Your task to perform on an android device: open app "Spotify: Music and Podcasts" (install if not already installed) Image 0: 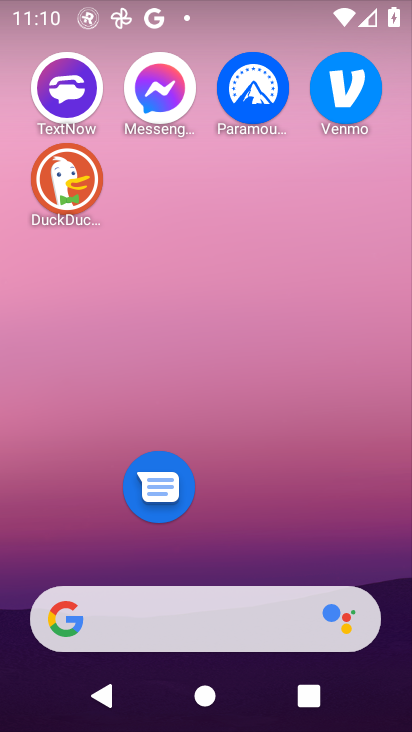
Step 0: drag from (208, 562) to (132, 13)
Your task to perform on an android device: open app "Spotify: Music and Podcasts" (install if not already installed) Image 1: 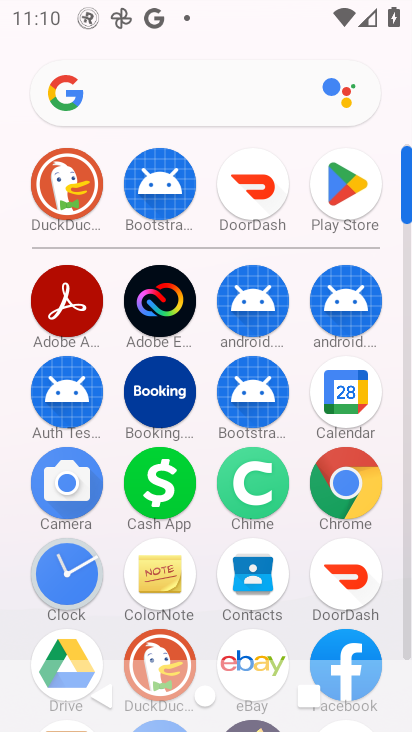
Step 1: click (346, 200)
Your task to perform on an android device: open app "Spotify: Music and Podcasts" (install if not already installed) Image 2: 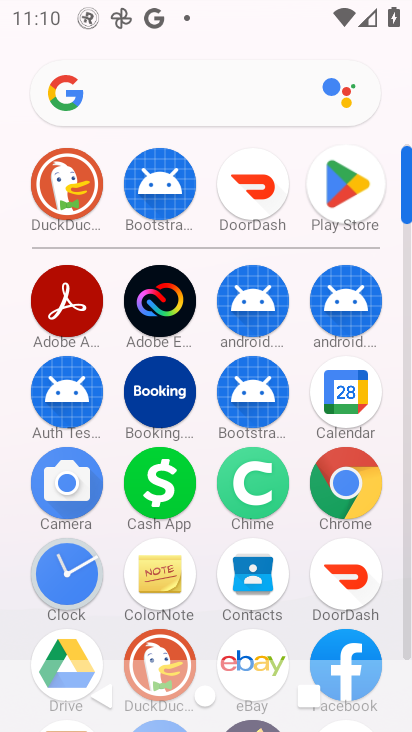
Step 2: click (346, 183)
Your task to perform on an android device: open app "Spotify: Music and Podcasts" (install if not already installed) Image 3: 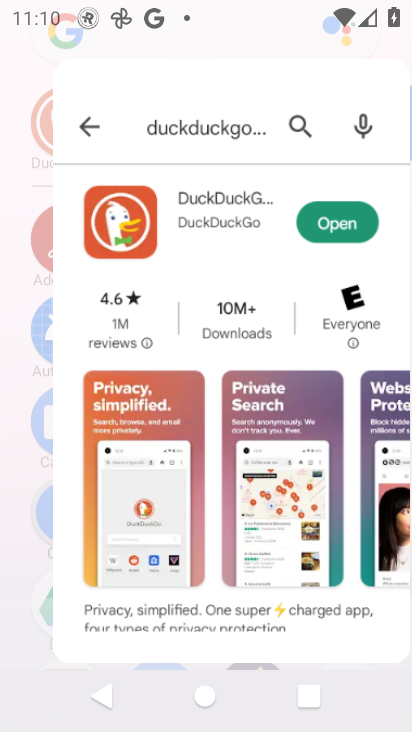
Step 3: click (345, 182)
Your task to perform on an android device: open app "Spotify: Music and Podcasts" (install if not already installed) Image 4: 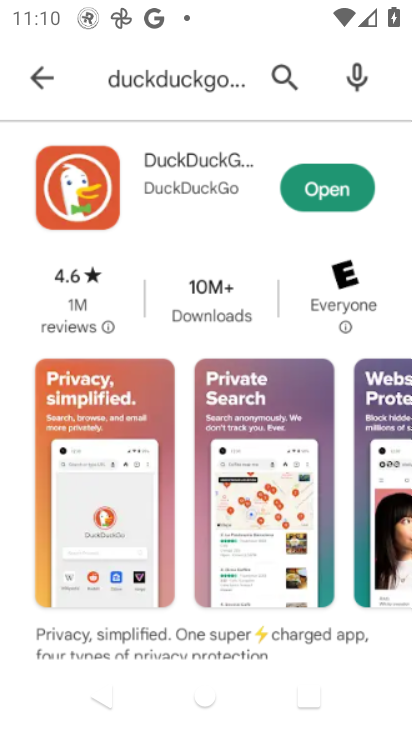
Step 4: click (345, 182)
Your task to perform on an android device: open app "Spotify: Music and Podcasts" (install if not already installed) Image 5: 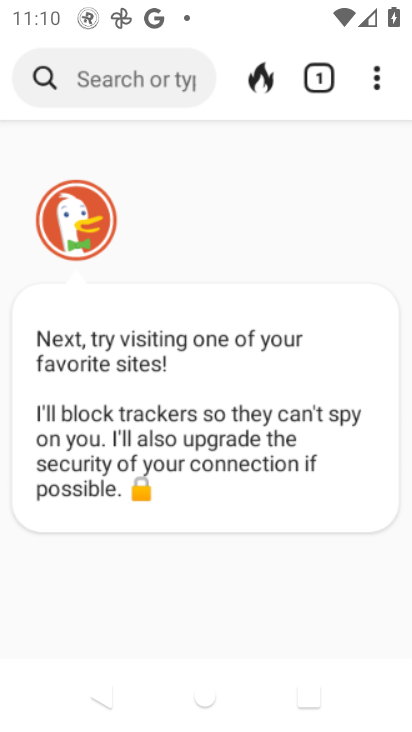
Step 5: click (39, 67)
Your task to perform on an android device: open app "Spotify: Music and Podcasts" (install if not already installed) Image 6: 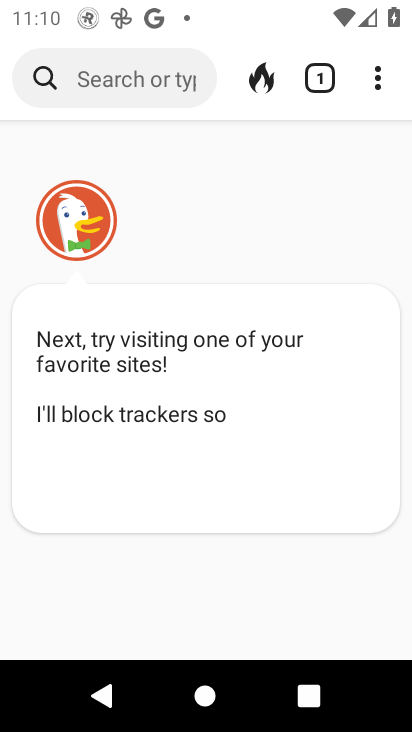
Step 6: press back button
Your task to perform on an android device: open app "Spotify: Music and Podcasts" (install if not already installed) Image 7: 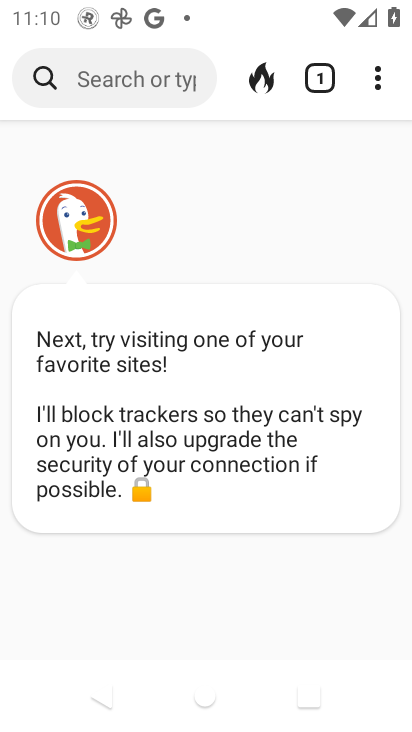
Step 7: press back button
Your task to perform on an android device: open app "Spotify: Music and Podcasts" (install if not already installed) Image 8: 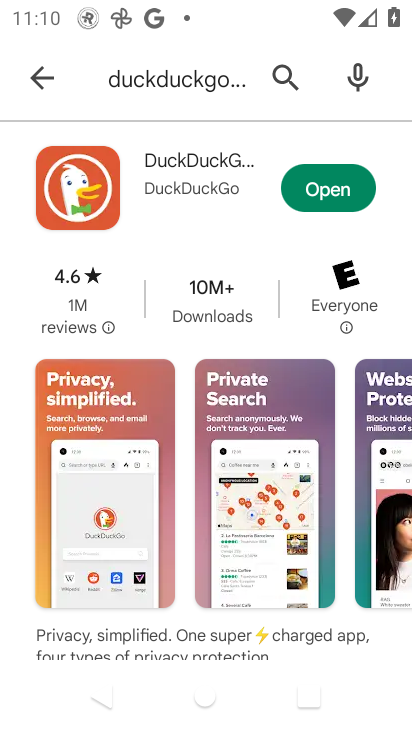
Step 8: click (112, 92)
Your task to perform on an android device: open app "Spotify: Music and Podcasts" (install if not already installed) Image 9: 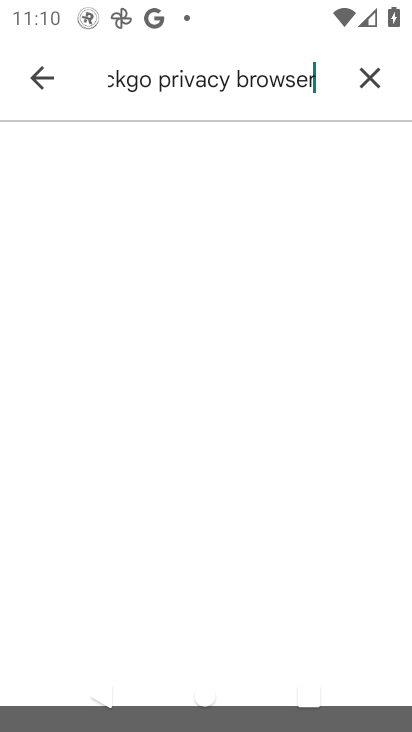
Step 9: click (45, 75)
Your task to perform on an android device: open app "Spotify: Music and Podcasts" (install if not already installed) Image 10: 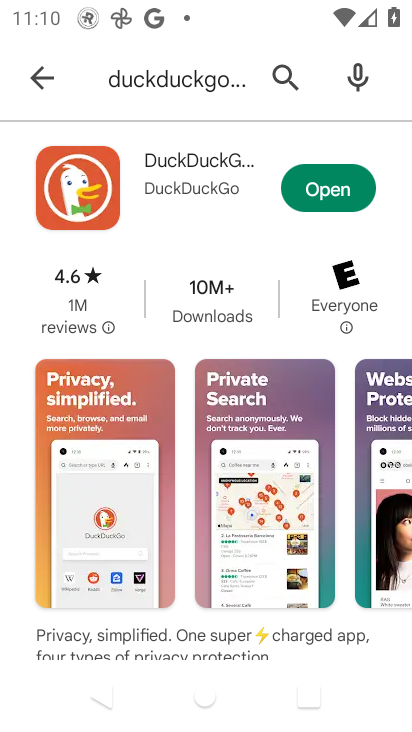
Step 10: click (43, 75)
Your task to perform on an android device: open app "Spotify: Music and Podcasts" (install if not already installed) Image 11: 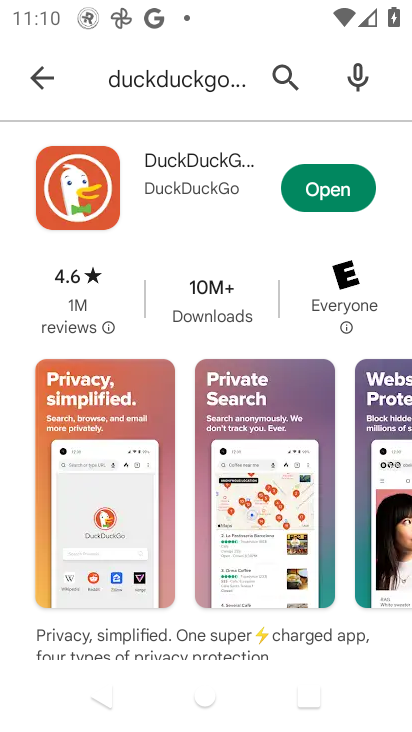
Step 11: click (42, 81)
Your task to perform on an android device: open app "Spotify: Music and Podcasts" (install if not already installed) Image 12: 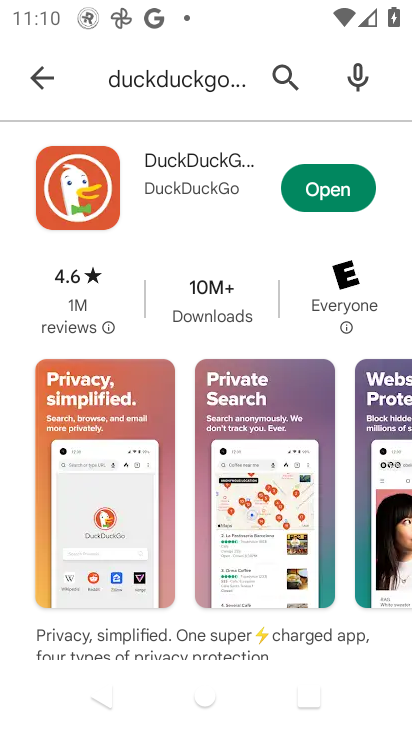
Step 12: click (231, 75)
Your task to perform on an android device: open app "Spotify: Music and Podcasts" (install if not already installed) Image 13: 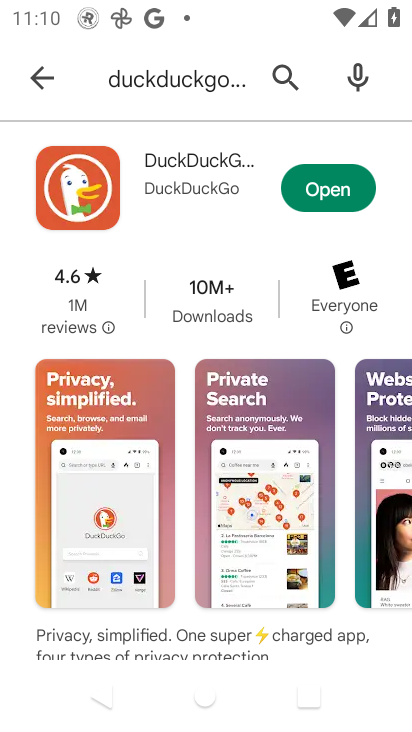
Step 13: click (231, 75)
Your task to perform on an android device: open app "Spotify: Music and Podcasts" (install if not already installed) Image 14: 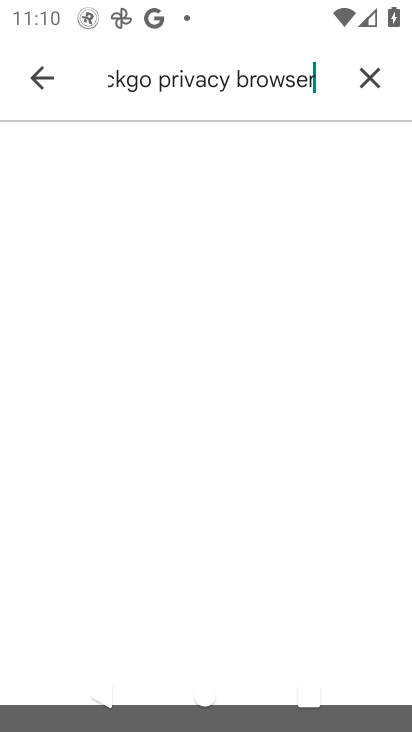
Step 14: click (232, 74)
Your task to perform on an android device: open app "Spotify: Music and Podcasts" (install if not already installed) Image 15: 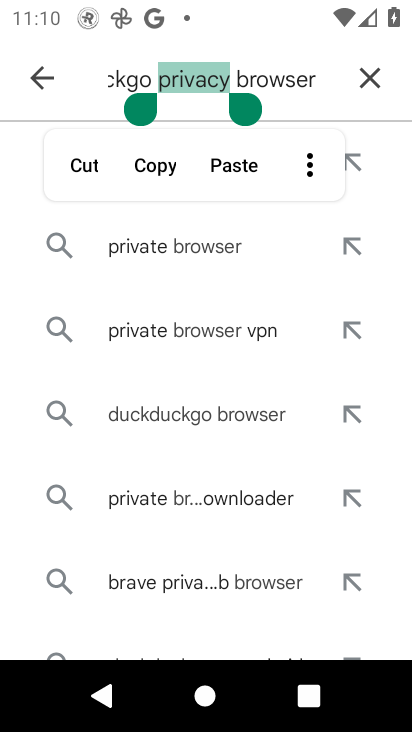
Step 15: click (370, 79)
Your task to perform on an android device: open app "Spotify: Music and Podcasts" (install if not already installed) Image 16: 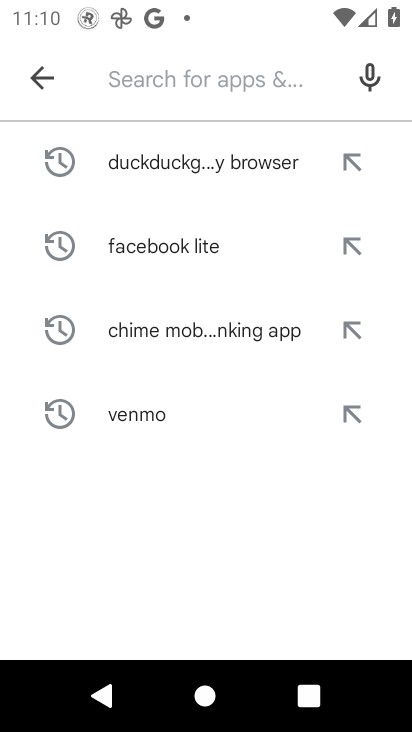
Step 16: click (370, 79)
Your task to perform on an android device: open app "Spotify: Music and Podcasts" (install if not already installed) Image 17: 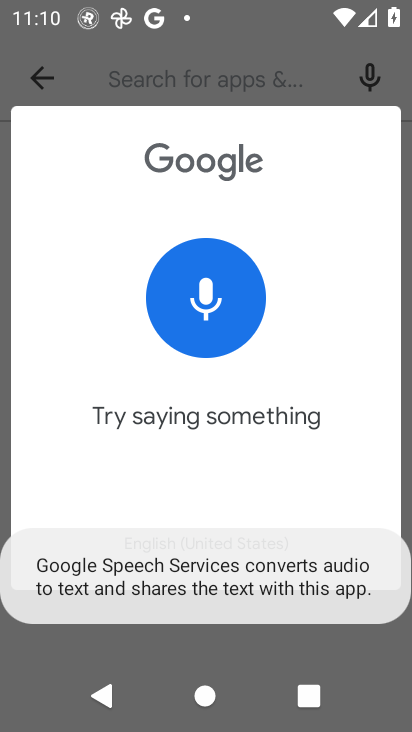
Step 17: click (126, 82)
Your task to perform on an android device: open app "Spotify: Music and Podcasts" (install if not already installed) Image 18: 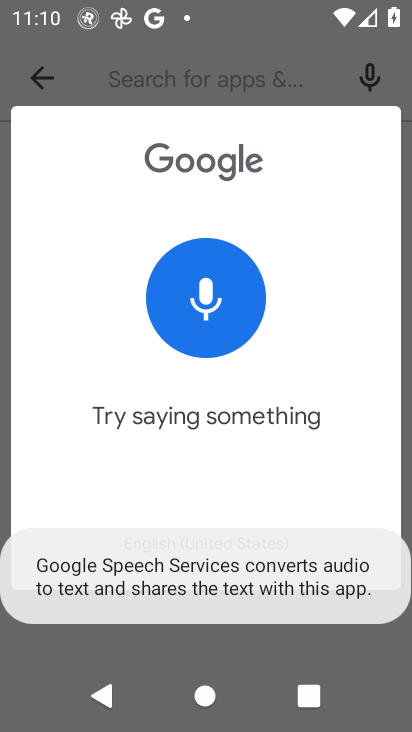
Step 18: click (126, 81)
Your task to perform on an android device: open app "Spotify: Music and Podcasts" (install if not already installed) Image 19: 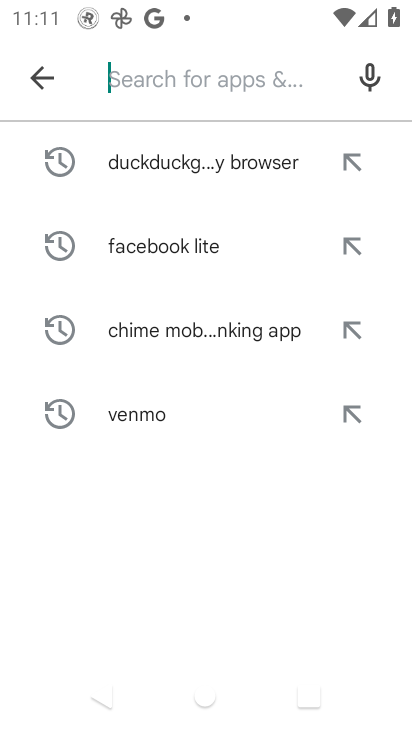
Step 19: type "Spotify : Music and Podcasts"
Your task to perform on an android device: open app "Spotify: Music and Podcasts" (install if not already installed) Image 20: 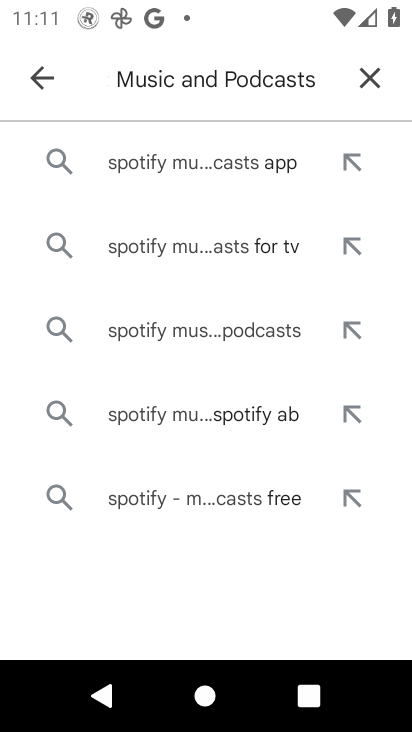
Step 20: click (232, 161)
Your task to perform on an android device: open app "Spotify: Music and Podcasts" (install if not already installed) Image 21: 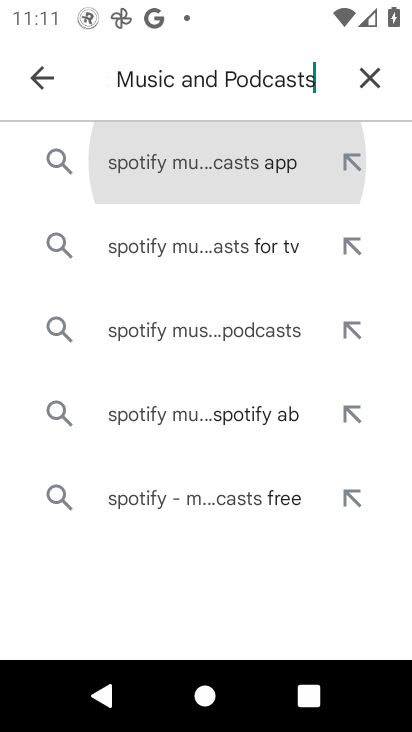
Step 21: click (233, 162)
Your task to perform on an android device: open app "Spotify: Music and Podcasts" (install if not already installed) Image 22: 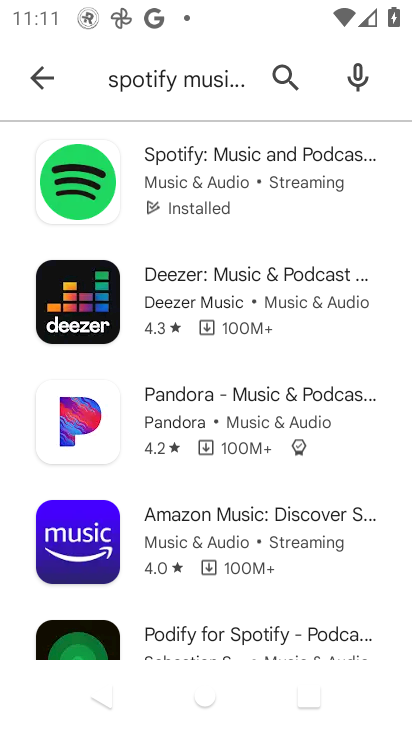
Step 22: click (230, 167)
Your task to perform on an android device: open app "Spotify: Music and Podcasts" (install if not already installed) Image 23: 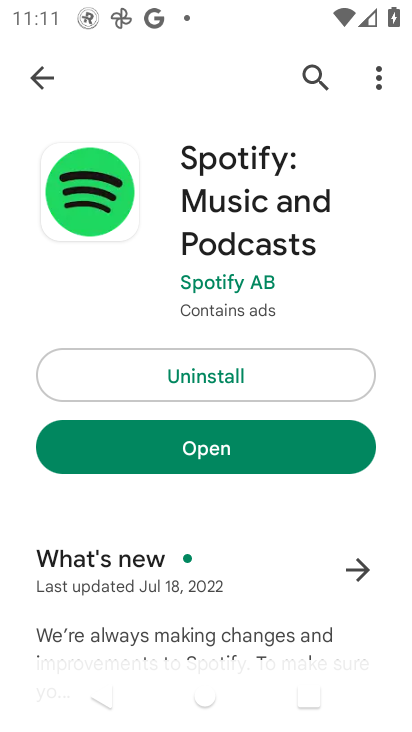
Step 23: click (220, 424)
Your task to perform on an android device: open app "Spotify: Music and Podcasts" (install if not already installed) Image 24: 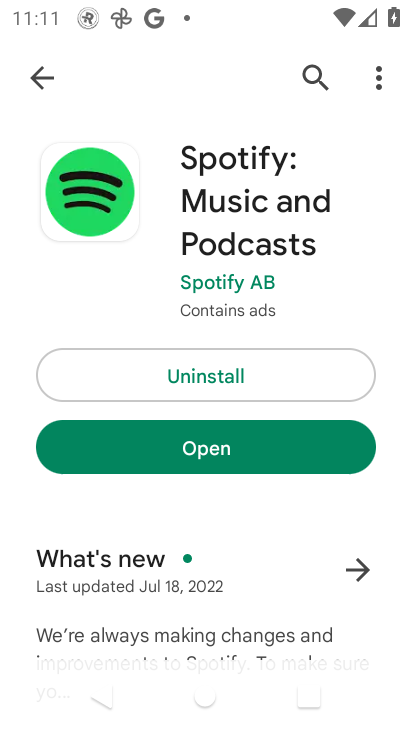
Step 24: click (235, 453)
Your task to perform on an android device: open app "Spotify: Music and Podcasts" (install if not already installed) Image 25: 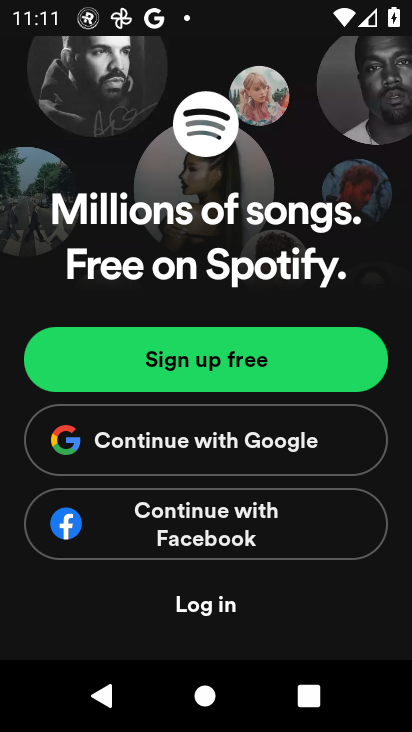
Step 25: task complete